Your task to perform on an android device: open app "Instagram" Image 0: 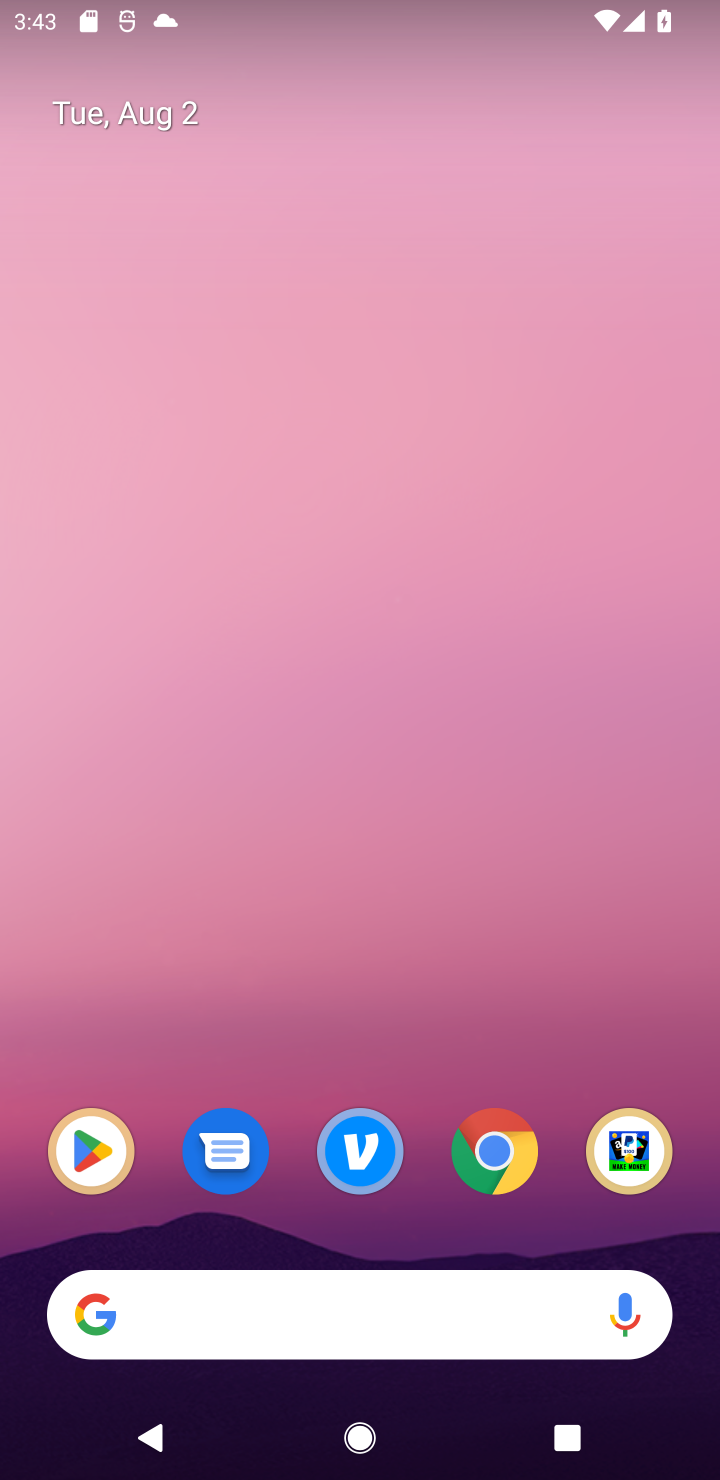
Step 0: drag from (354, 1326) to (341, 142)
Your task to perform on an android device: open app "Instagram" Image 1: 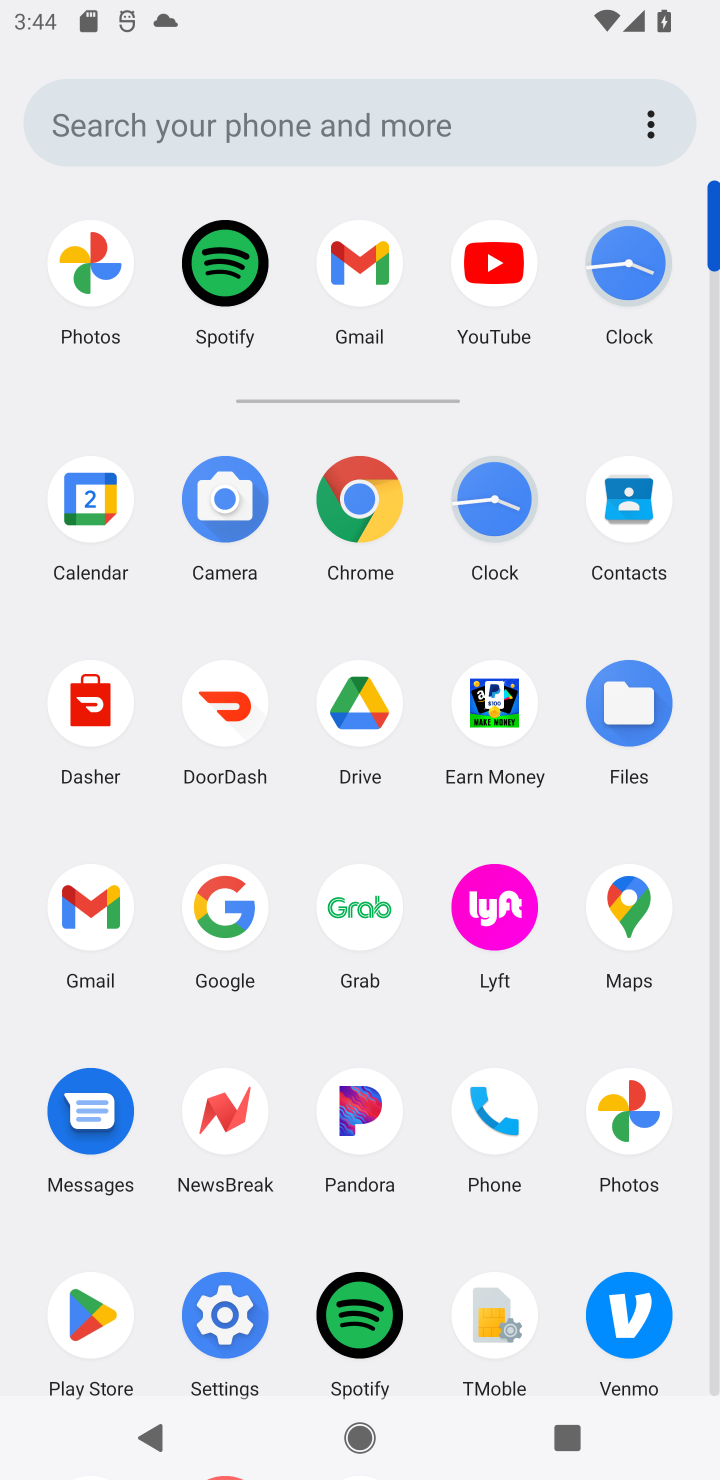
Step 1: click (69, 1338)
Your task to perform on an android device: open app "Instagram" Image 2: 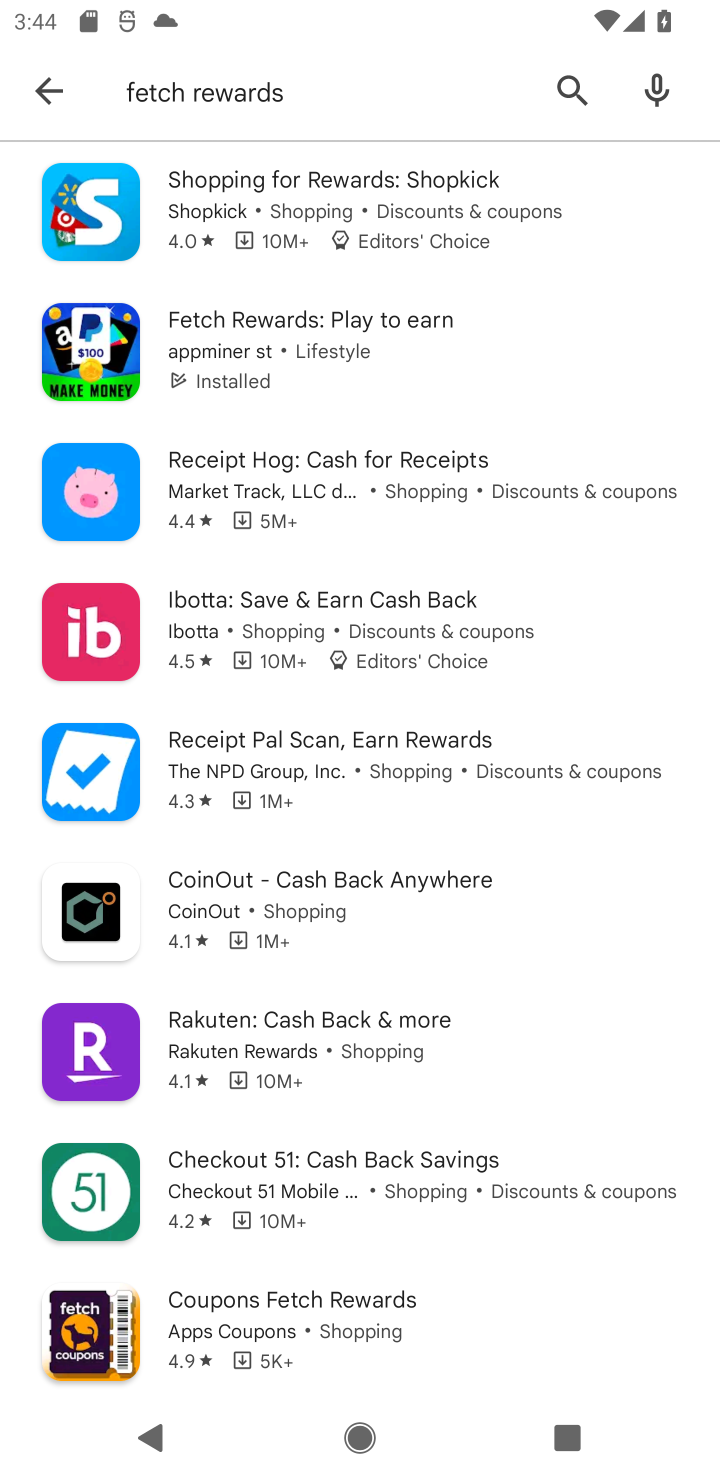
Step 2: click (23, 81)
Your task to perform on an android device: open app "Instagram" Image 3: 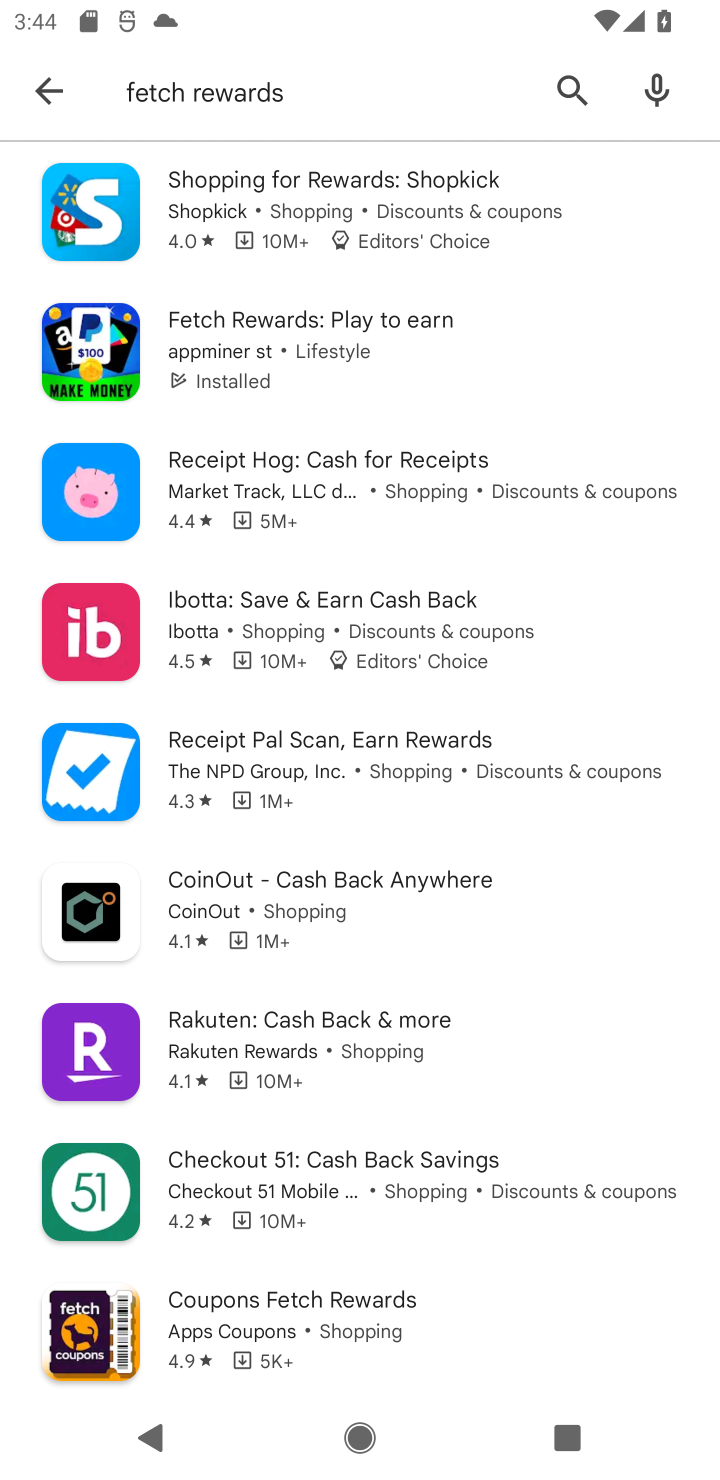
Step 3: click (37, 104)
Your task to perform on an android device: open app "Instagram" Image 4: 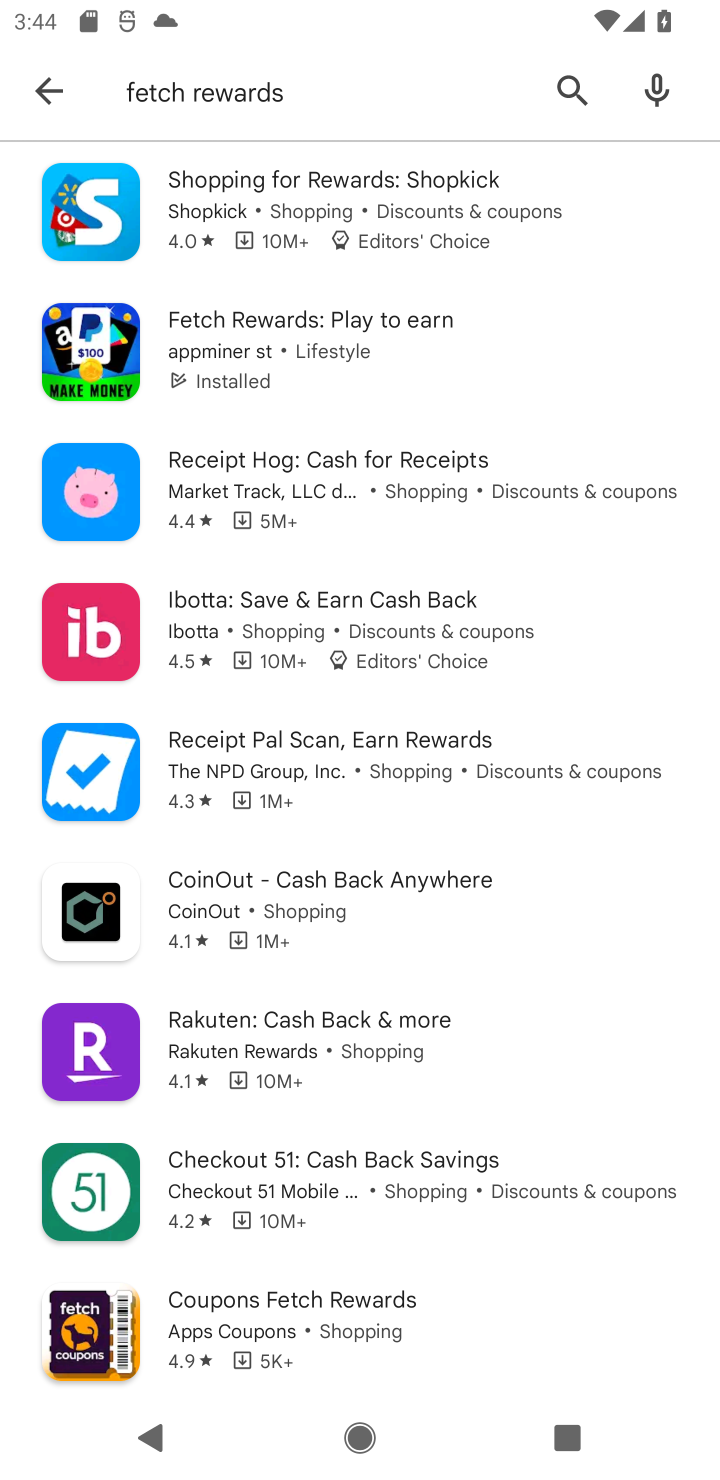
Step 4: click (60, 82)
Your task to perform on an android device: open app "Instagram" Image 5: 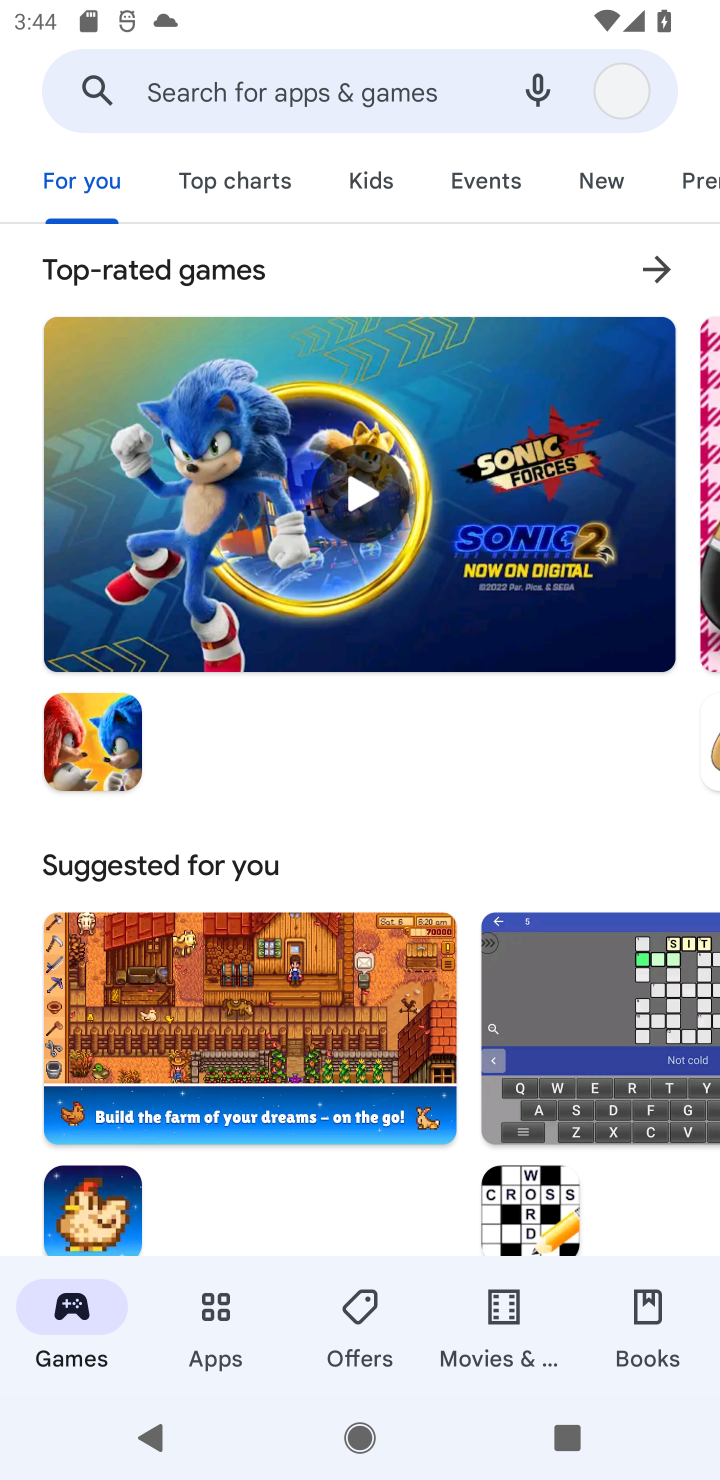
Step 5: drag from (282, 821) to (278, 1044)
Your task to perform on an android device: open app "Instagram" Image 6: 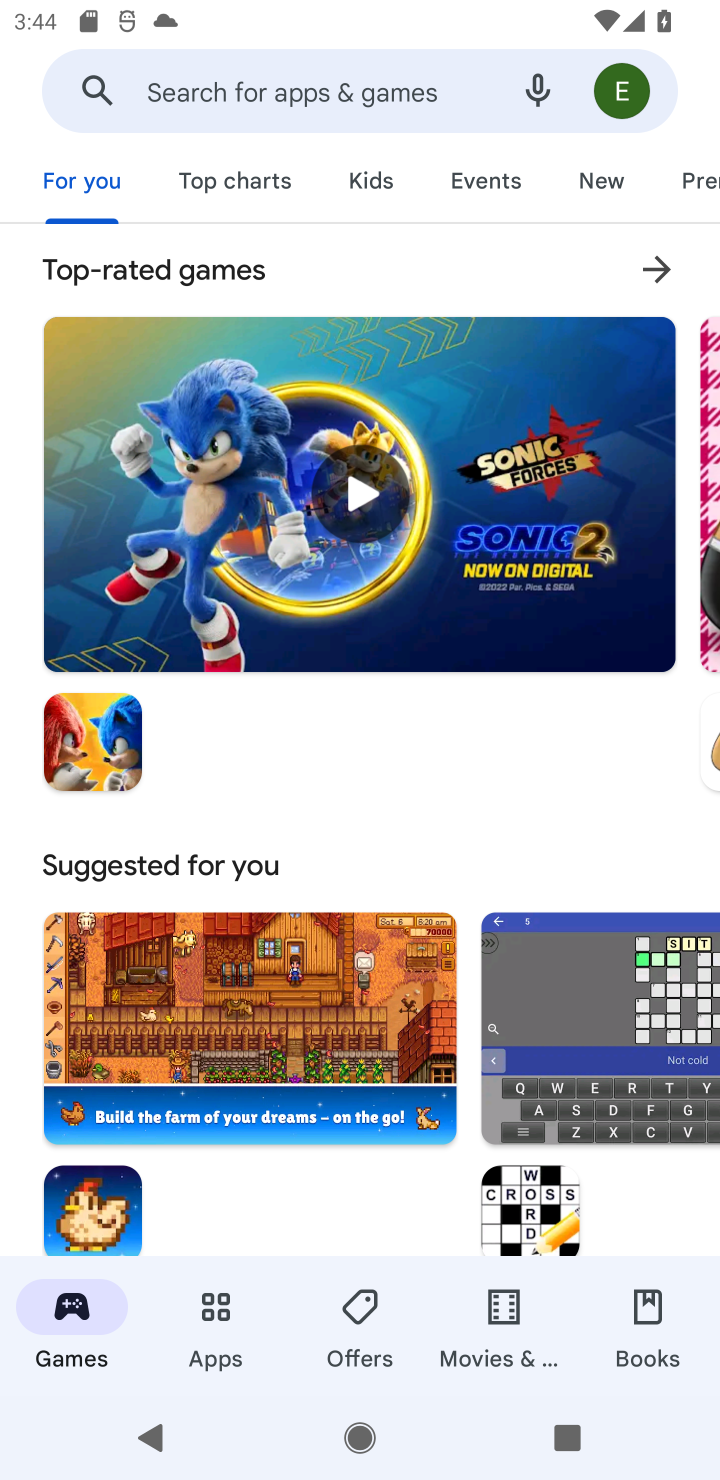
Step 6: click (338, 111)
Your task to perform on an android device: open app "Instagram" Image 7: 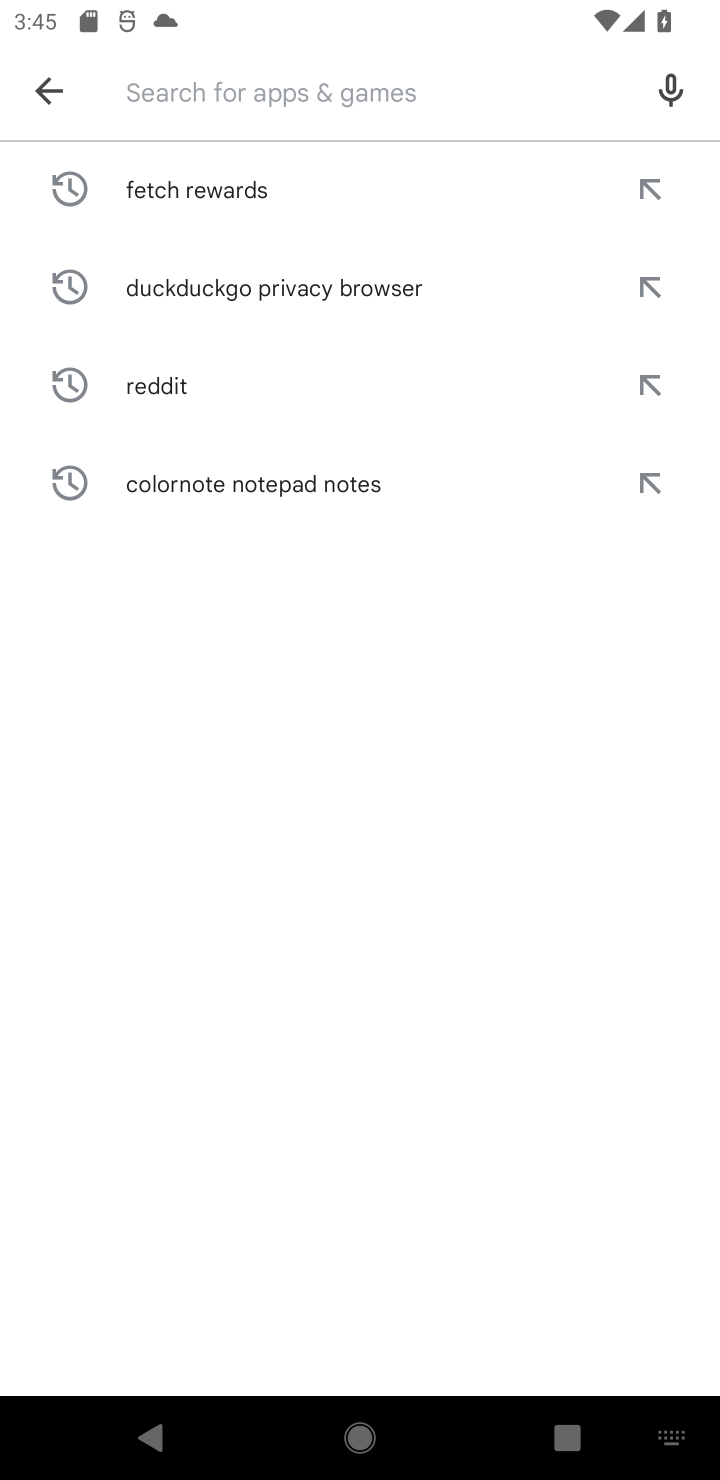
Step 7: type "Instagram"
Your task to perform on an android device: open app "Instagram" Image 8: 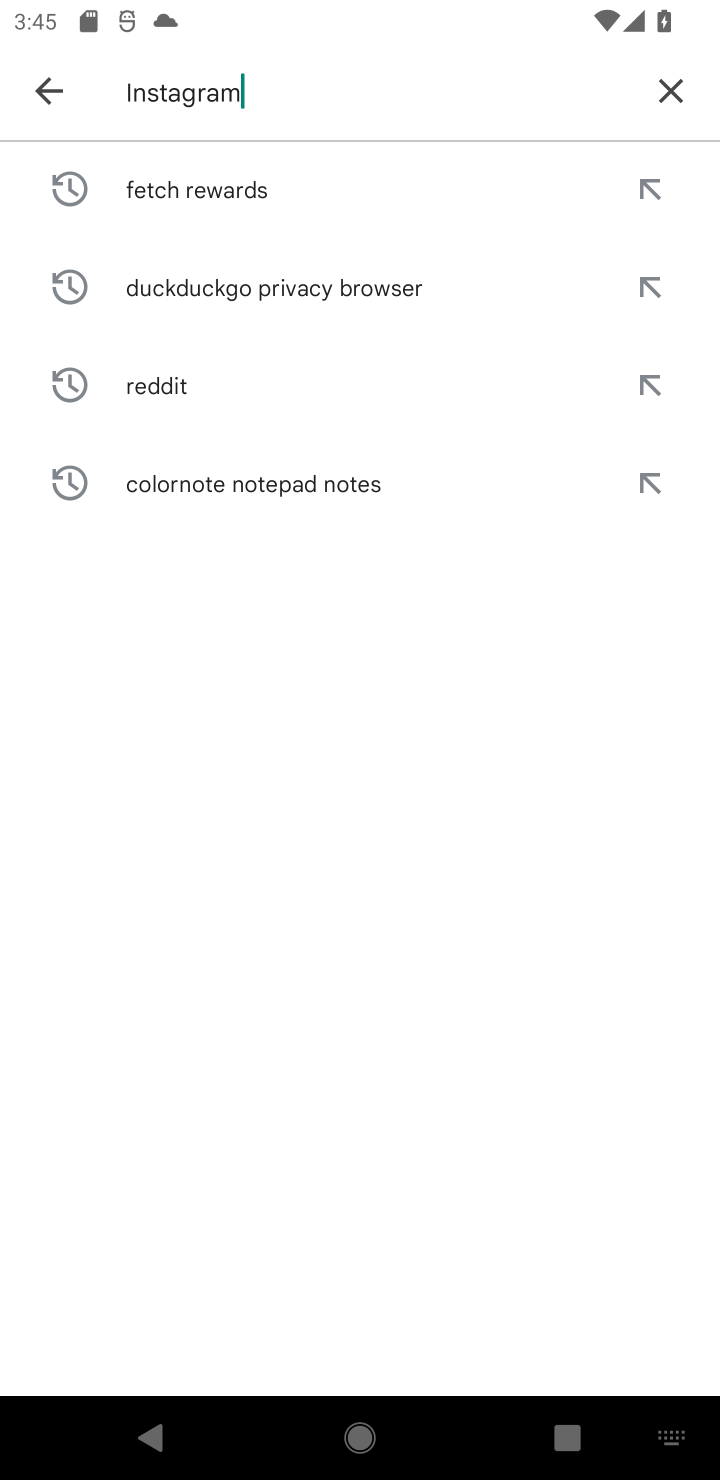
Step 8: type ""
Your task to perform on an android device: open app "Instagram" Image 9: 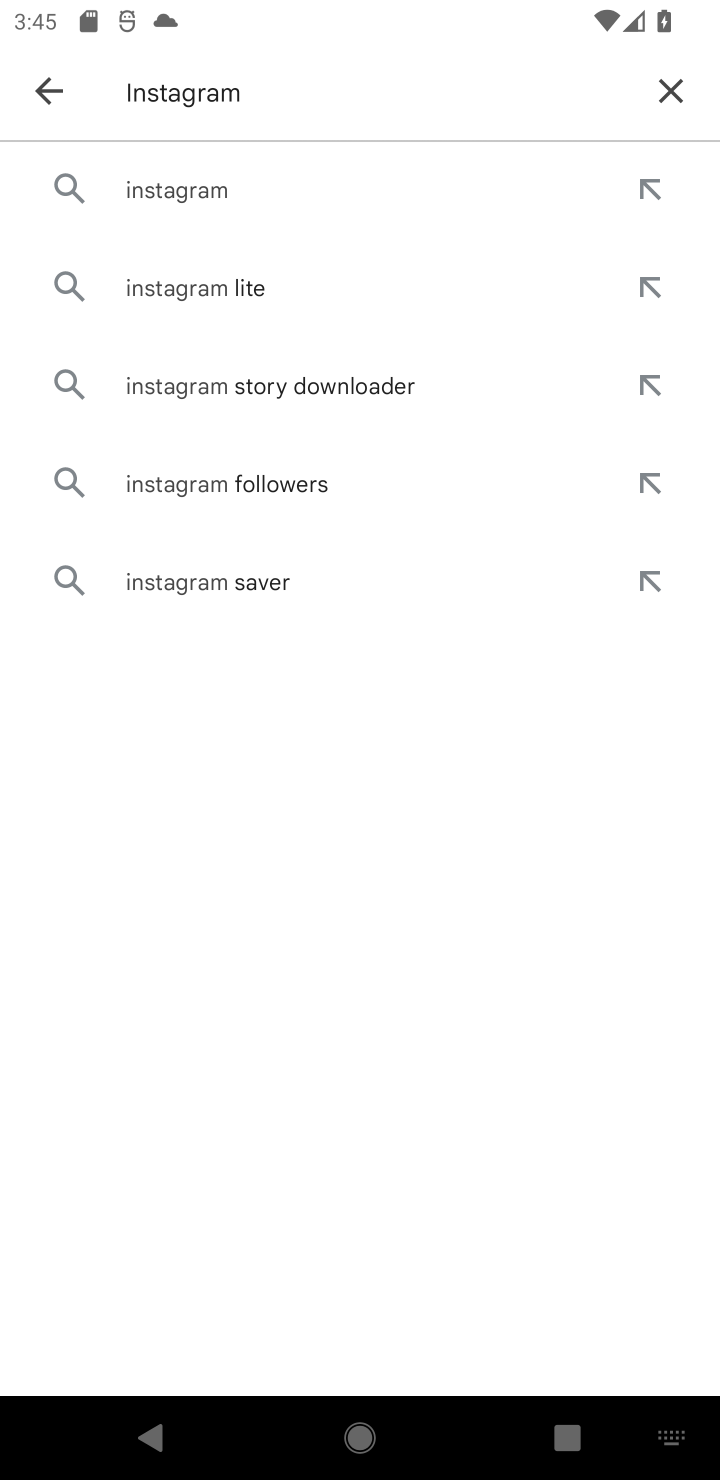
Step 9: click (151, 182)
Your task to perform on an android device: open app "Instagram" Image 10: 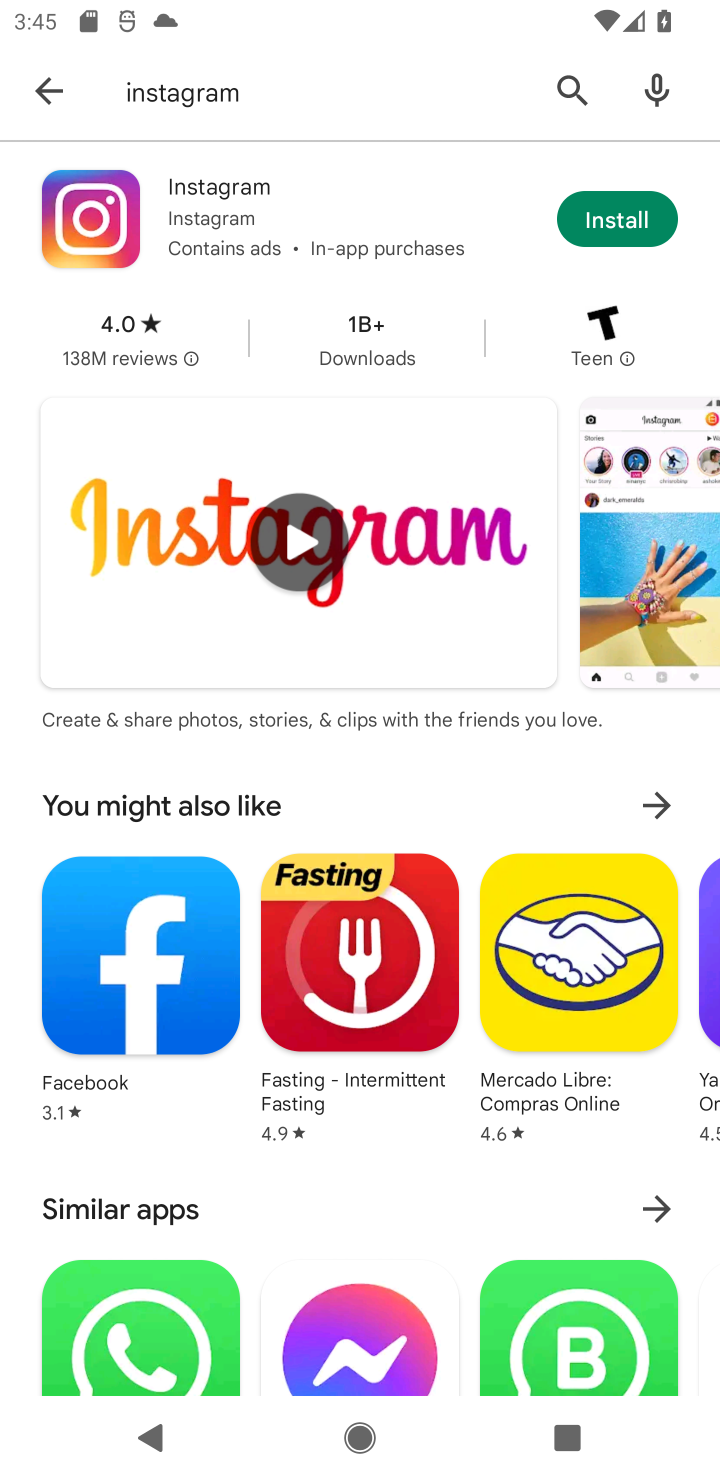
Step 10: task complete